Your task to perform on an android device: change the clock style Image 0: 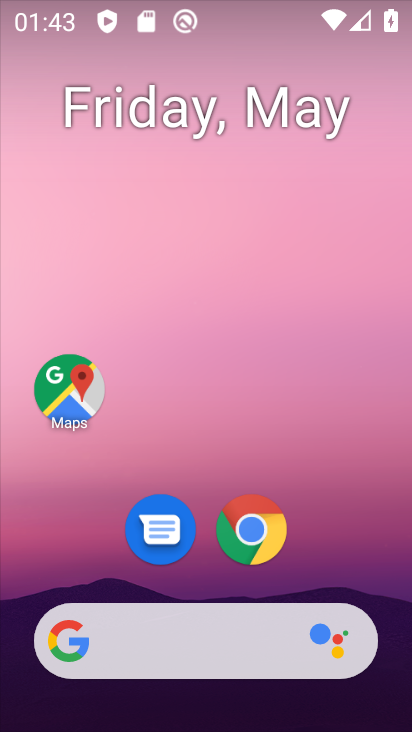
Step 0: drag from (313, 470) to (313, 136)
Your task to perform on an android device: change the clock style Image 1: 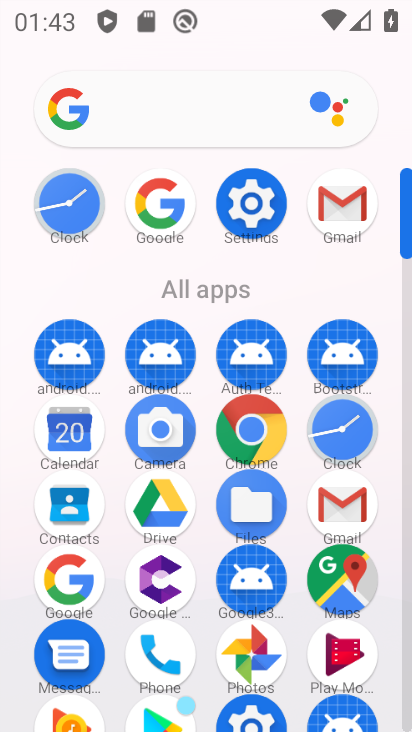
Step 1: click (67, 204)
Your task to perform on an android device: change the clock style Image 2: 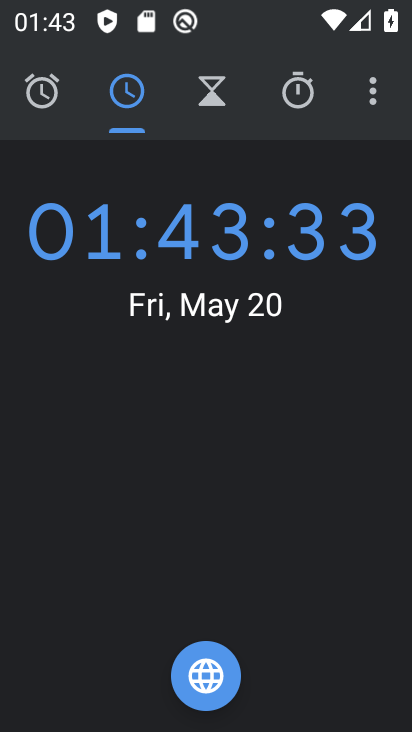
Step 2: click (361, 102)
Your task to perform on an android device: change the clock style Image 3: 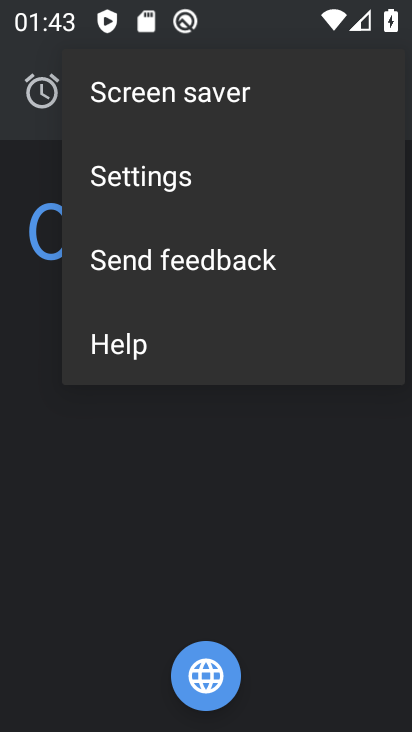
Step 3: click (194, 169)
Your task to perform on an android device: change the clock style Image 4: 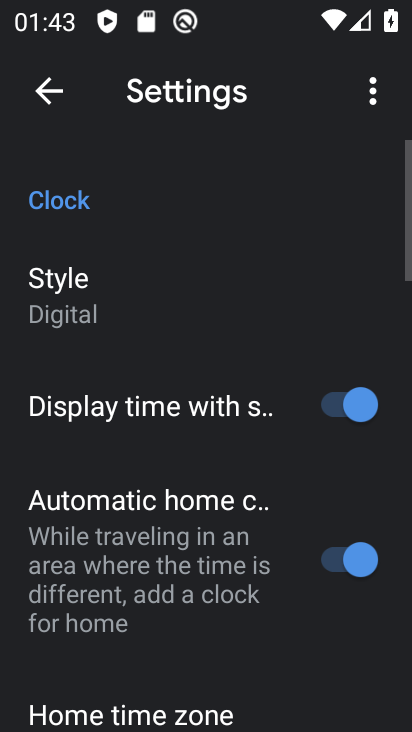
Step 4: click (122, 290)
Your task to perform on an android device: change the clock style Image 5: 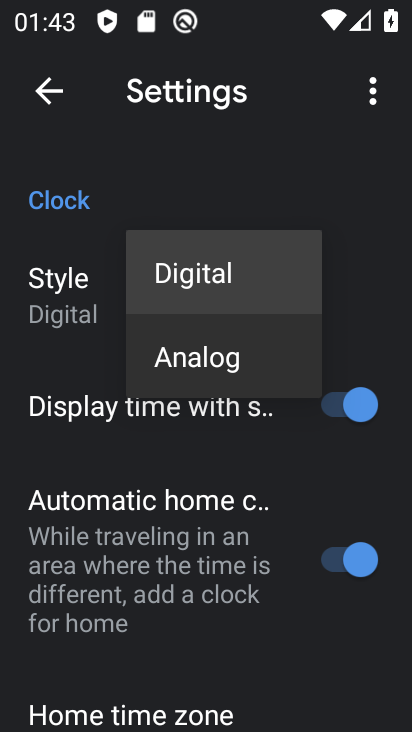
Step 5: click (201, 364)
Your task to perform on an android device: change the clock style Image 6: 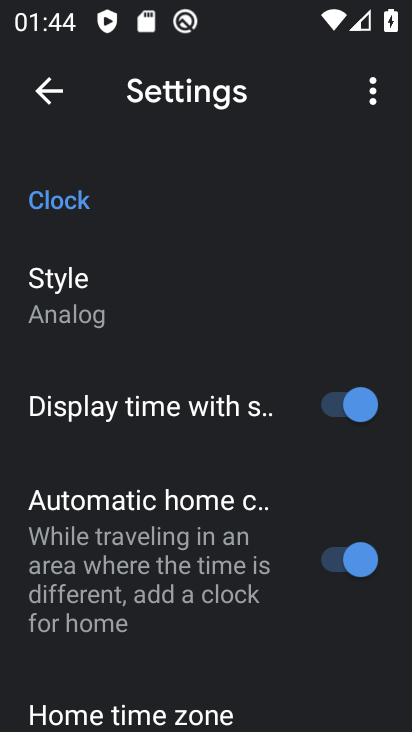
Step 6: task complete